Your task to perform on an android device: turn on priority inbox in the gmail app Image 0: 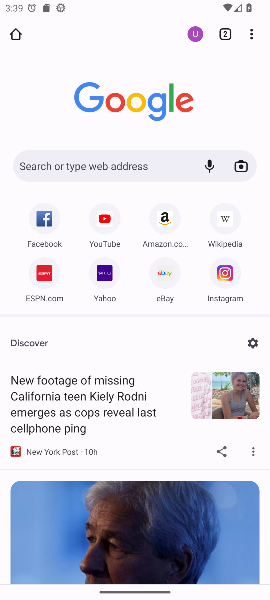
Step 0: press home button
Your task to perform on an android device: turn on priority inbox in the gmail app Image 1: 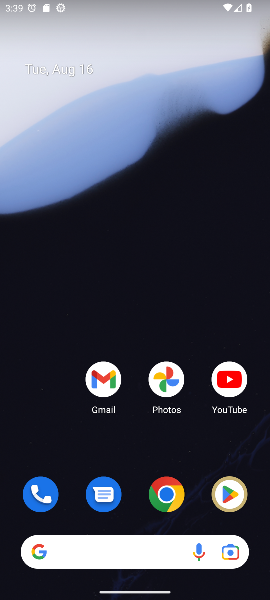
Step 1: drag from (145, 531) to (99, 15)
Your task to perform on an android device: turn on priority inbox in the gmail app Image 2: 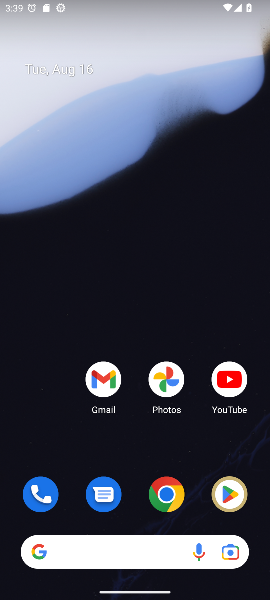
Step 2: drag from (168, 531) to (98, 95)
Your task to perform on an android device: turn on priority inbox in the gmail app Image 3: 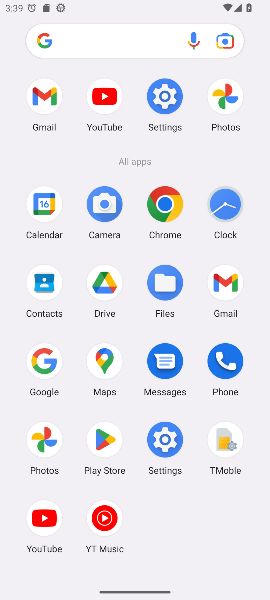
Step 3: click (219, 282)
Your task to perform on an android device: turn on priority inbox in the gmail app Image 4: 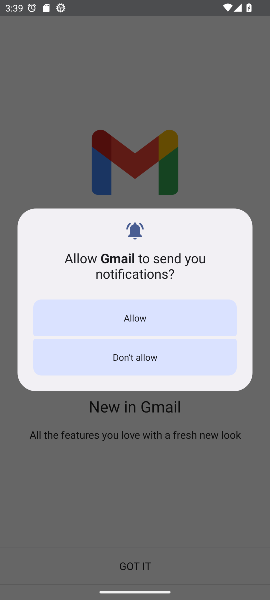
Step 4: click (152, 325)
Your task to perform on an android device: turn on priority inbox in the gmail app Image 5: 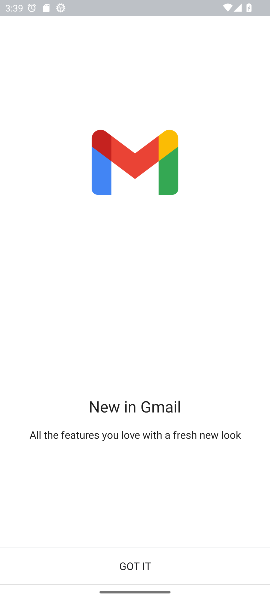
Step 5: click (146, 572)
Your task to perform on an android device: turn on priority inbox in the gmail app Image 6: 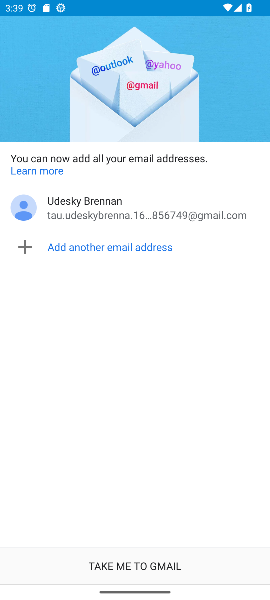
Step 6: click (143, 572)
Your task to perform on an android device: turn on priority inbox in the gmail app Image 7: 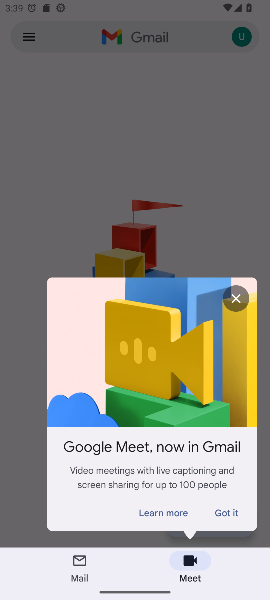
Step 7: click (37, 39)
Your task to perform on an android device: turn on priority inbox in the gmail app Image 8: 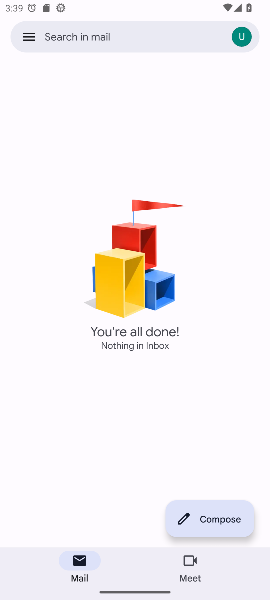
Step 8: click (29, 36)
Your task to perform on an android device: turn on priority inbox in the gmail app Image 9: 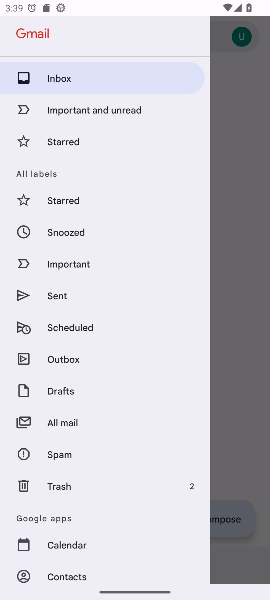
Step 9: drag from (32, 500) to (23, 5)
Your task to perform on an android device: turn on priority inbox in the gmail app Image 10: 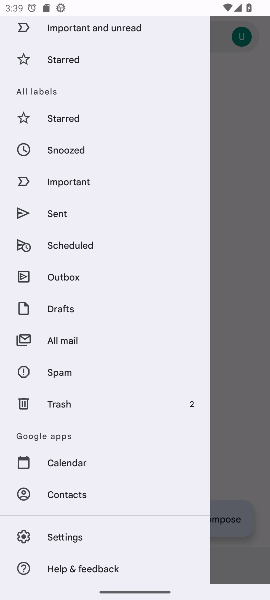
Step 10: click (42, 531)
Your task to perform on an android device: turn on priority inbox in the gmail app Image 11: 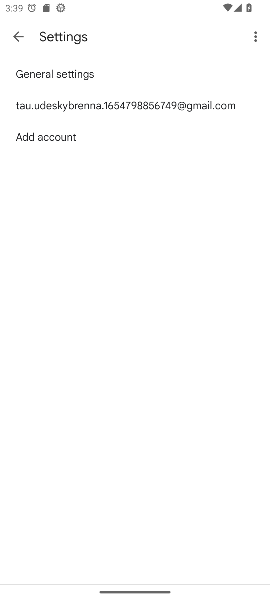
Step 11: click (49, 106)
Your task to perform on an android device: turn on priority inbox in the gmail app Image 12: 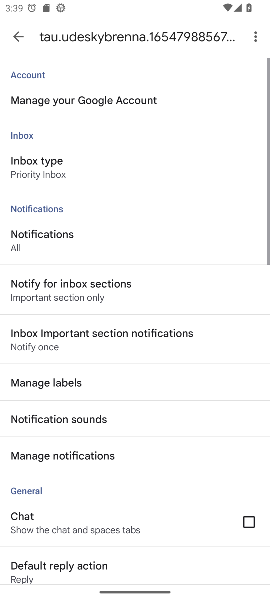
Step 12: click (45, 156)
Your task to perform on an android device: turn on priority inbox in the gmail app Image 13: 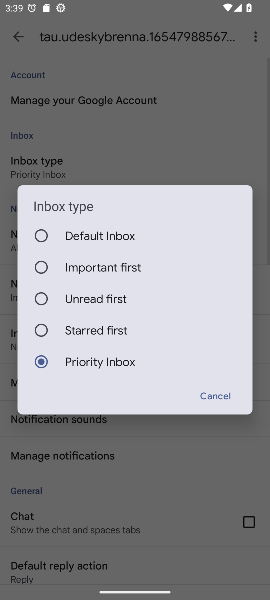
Step 13: click (56, 368)
Your task to perform on an android device: turn on priority inbox in the gmail app Image 14: 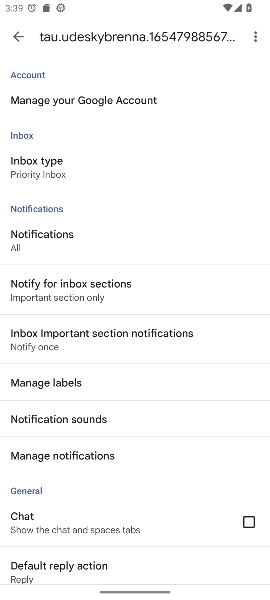
Step 14: task complete